Your task to perform on an android device: open a new tab in the chrome app Image 0: 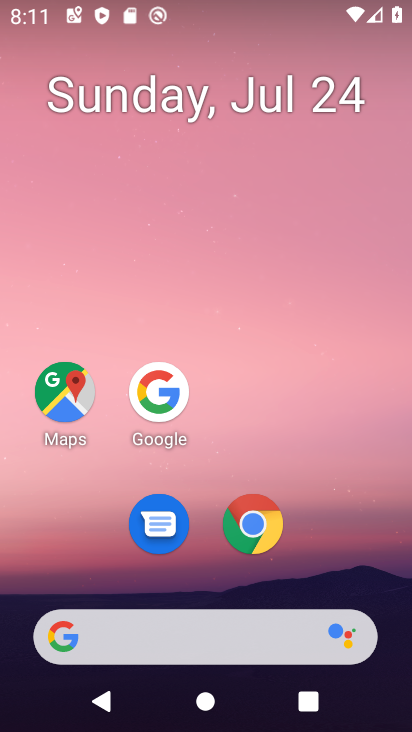
Step 0: press home button
Your task to perform on an android device: open a new tab in the chrome app Image 1: 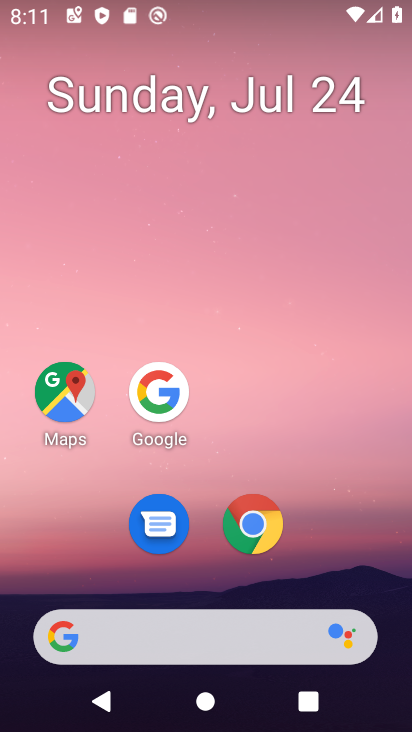
Step 1: click (254, 521)
Your task to perform on an android device: open a new tab in the chrome app Image 2: 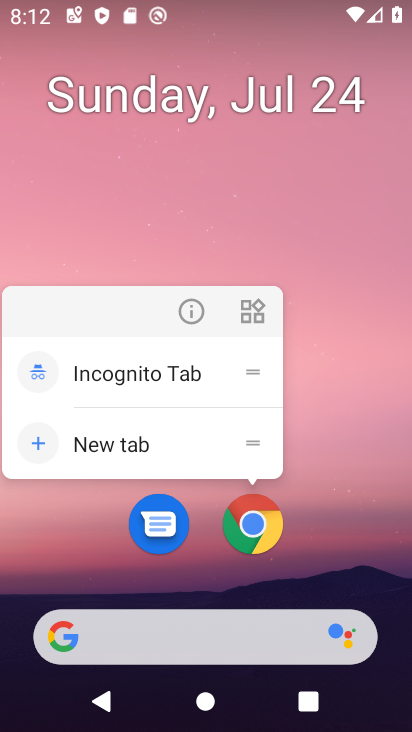
Step 2: click (259, 527)
Your task to perform on an android device: open a new tab in the chrome app Image 3: 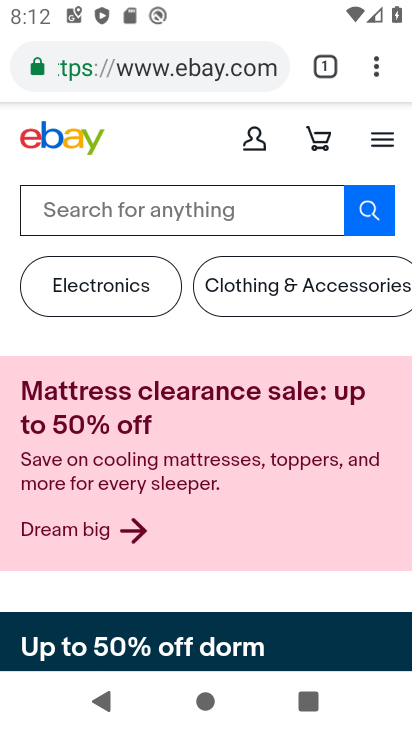
Step 3: task complete